Your task to perform on an android device: Go to Google Image 0: 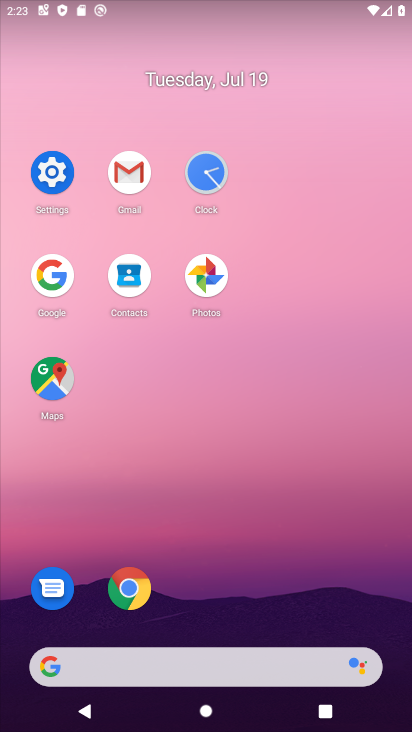
Step 0: click (59, 273)
Your task to perform on an android device: Go to Google Image 1: 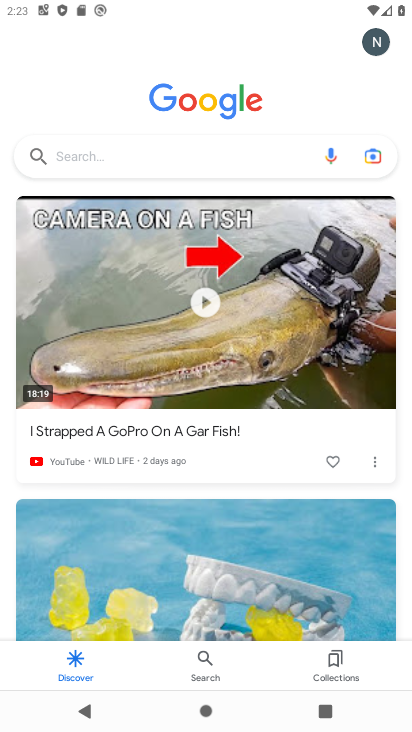
Step 1: task complete